Your task to perform on an android device: turn off location history Image 0: 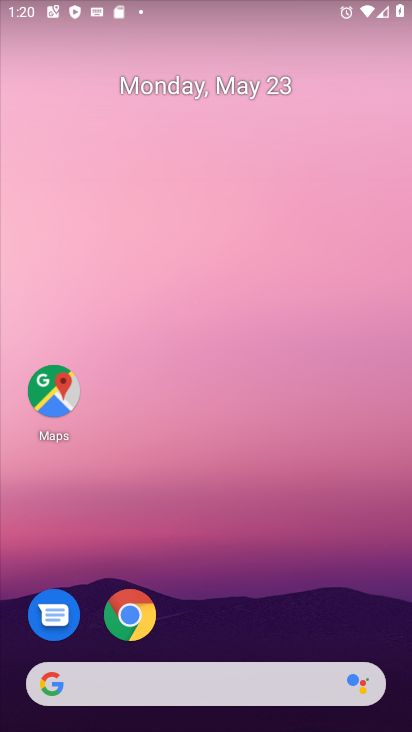
Step 0: drag from (229, 727) to (234, 145)
Your task to perform on an android device: turn off location history Image 1: 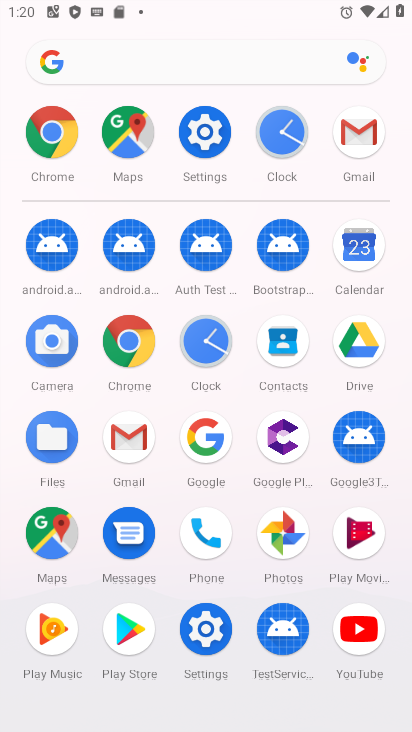
Step 1: click (208, 139)
Your task to perform on an android device: turn off location history Image 2: 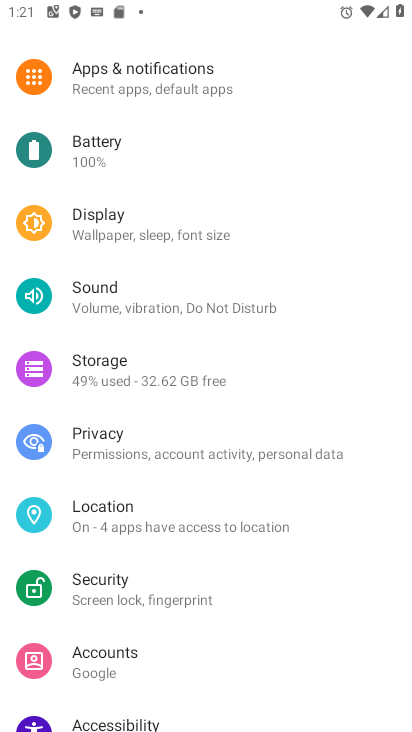
Step 2: click (119, 503)
Your task to perform on an android device: turn off location history Image 3: 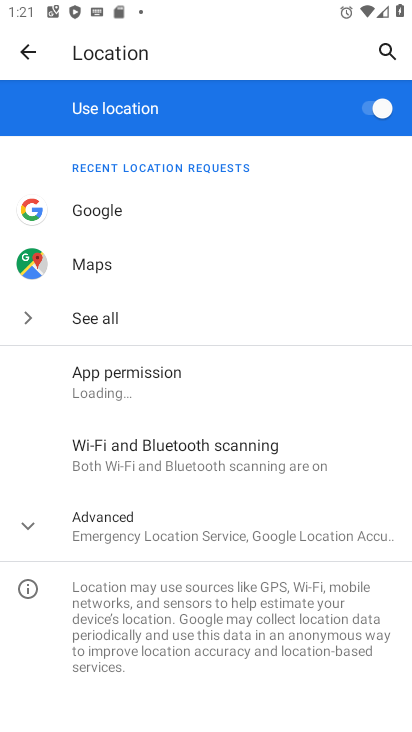
Step 3: click (114, 524)
Your task to perform on an android device: turn off location history Image 4: 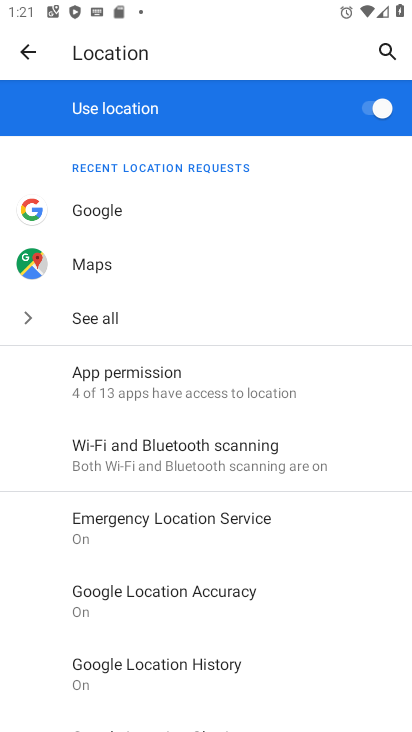
Step 4: click (178, 659)
Your task to perform on an android device: turn off location history Image 5: 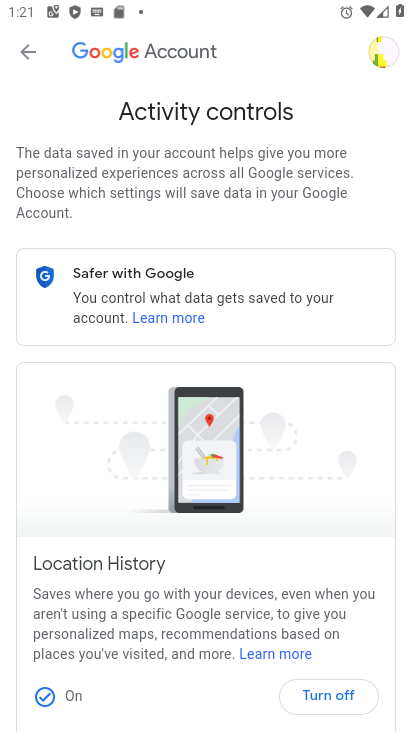
Step 5: click (317, 697)
Your task to perform on an android device: turn off location history Image 6: 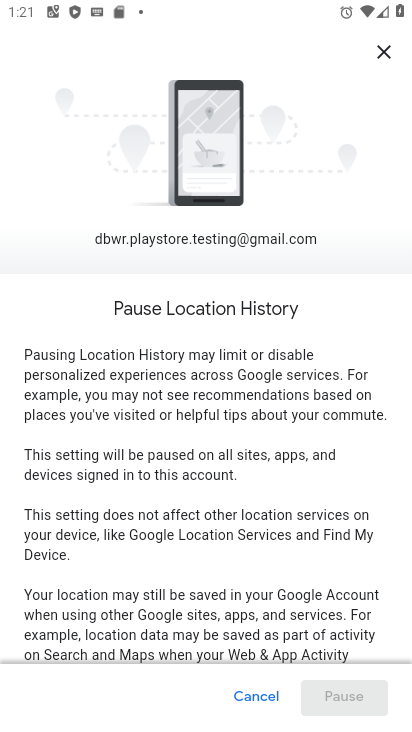
Step 6: drag from (280, 570) to (280, 296)
Your task to perform on an android device: turn off location history Image 7: 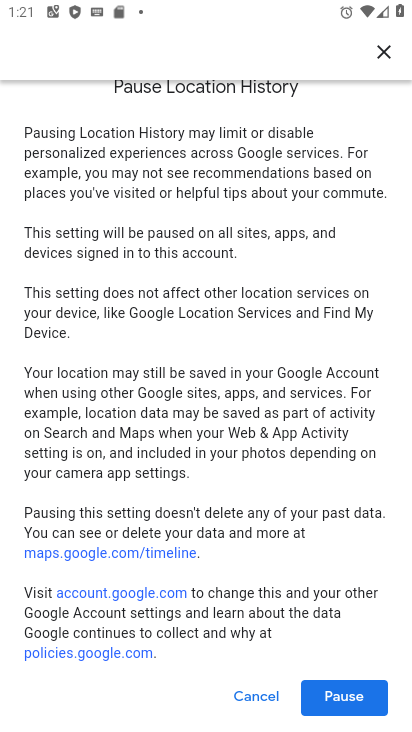
Step 7: click (341, 694)
Your task to perform on an android device: turn off location history Image 8: 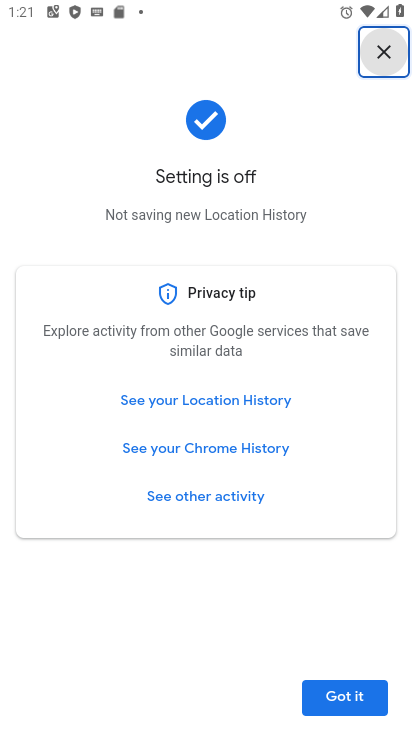
Step 8: click (339, 704)
Your task to perform on an android device: turn off location history Image 9: 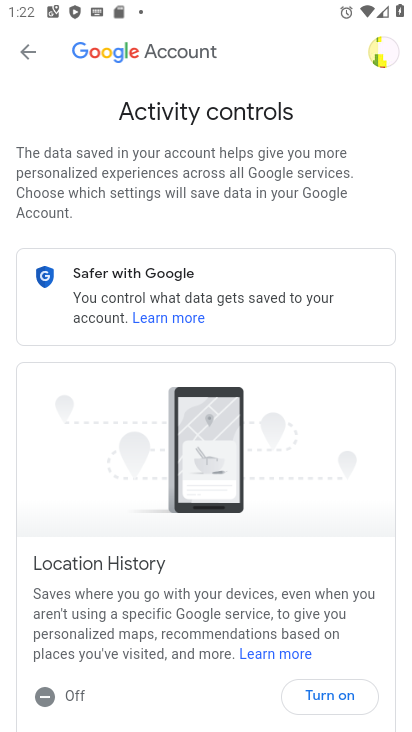
Step 9: task complete